Your task to perform on an android device: Open notification settings Image 0: 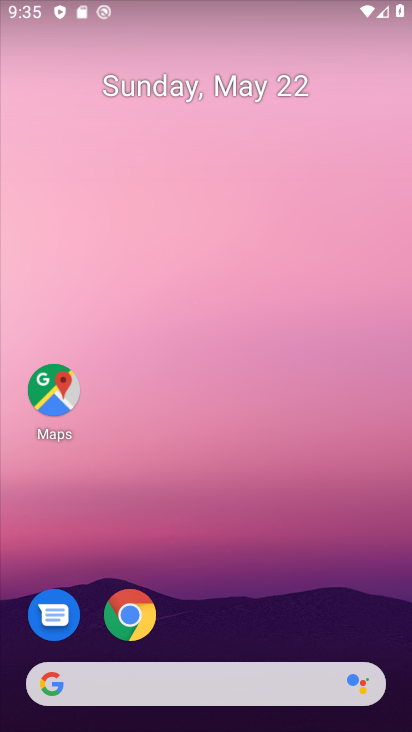
Step 0: drag from (320, 579) to (313, 155)
Your task to perform on an android device: Open notification settings Image 1: 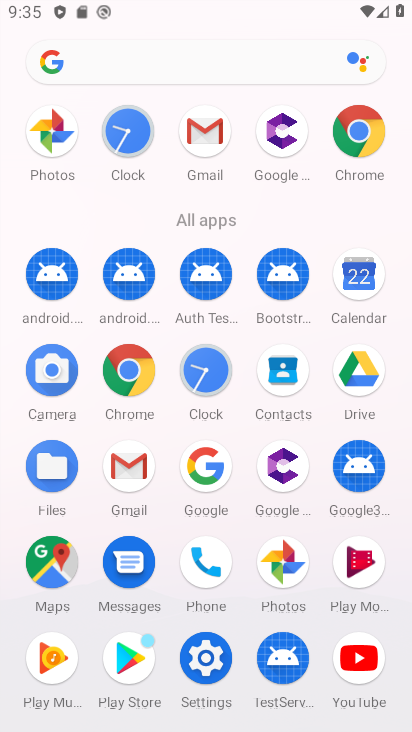
Step 1: click (205, 665)
Your task to perform on an android device: Open notification settings Image 2: 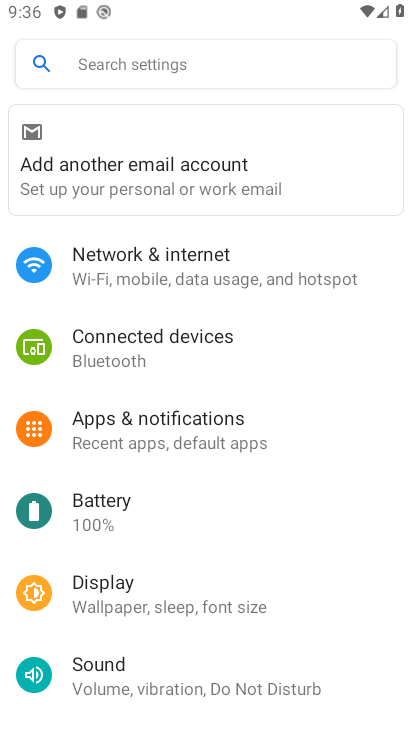
Step 2: click (159, 421)
Your task to perform on an android device: Open notification settings Image 3: 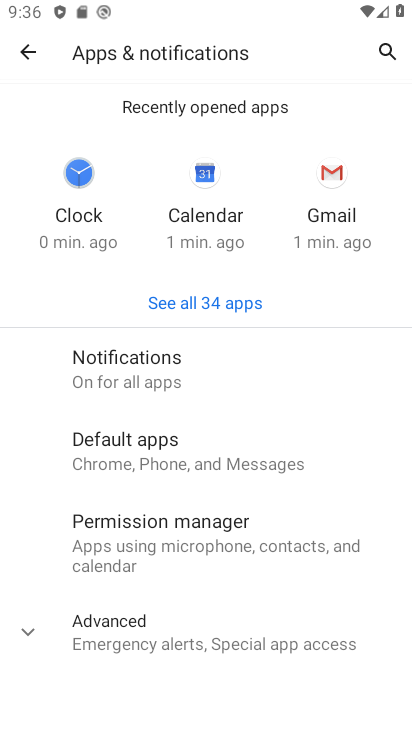
Step 3: click (179, 372)
Your task to perform on an android device: Open notification settings Image 4: 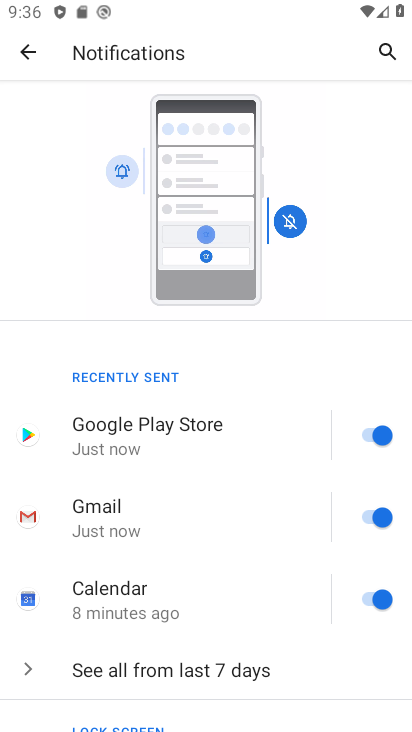
Step 4: task complete